Your task to perform on an android device: Show me the alarms in the clock app Image 0: 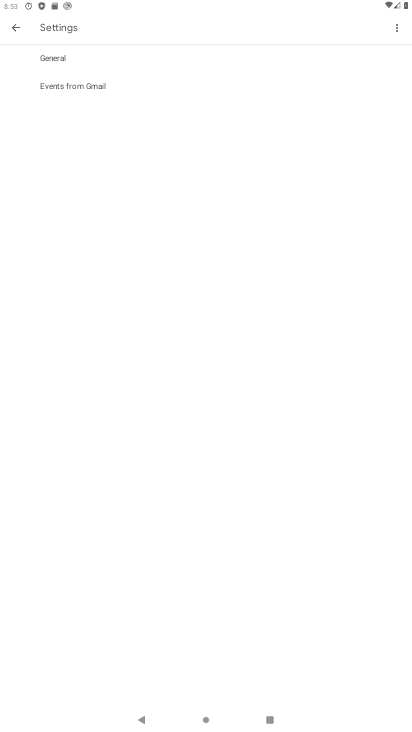
Step 0: press home button
Your task to perform on an android device: Show me the alarms in the clock app Image 1: 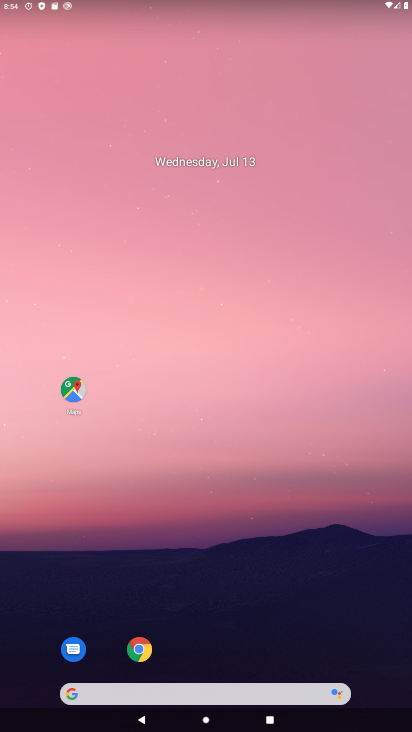
Step 1: drag from (243, 691) to (197, 0)
Your task to perform on an android device: Show me the alarms in the clock app Image 2: 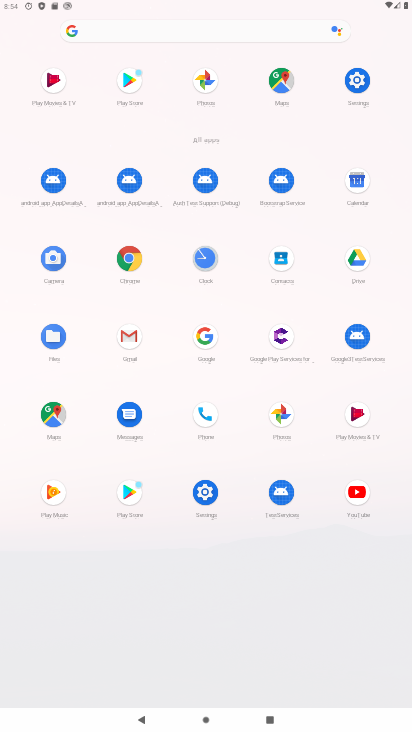
Step 2: click (209, 252)
Your task to perform on an android device: Show me the alarms in the clock app Image 3: 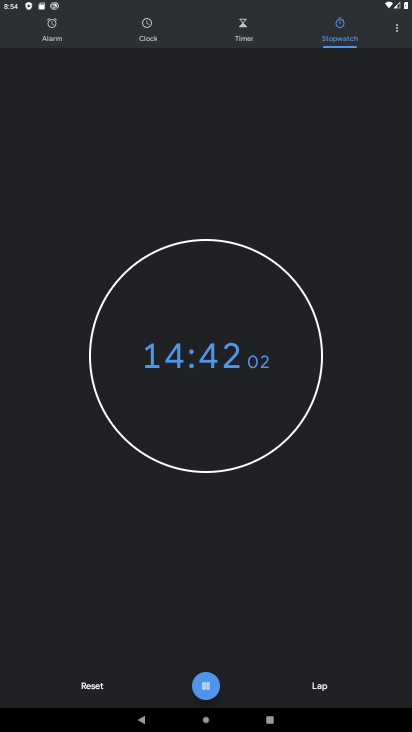
Step 3: click (58, 21)
Your task to perform on an android device: Show me the alarms in the clock app Image 4: 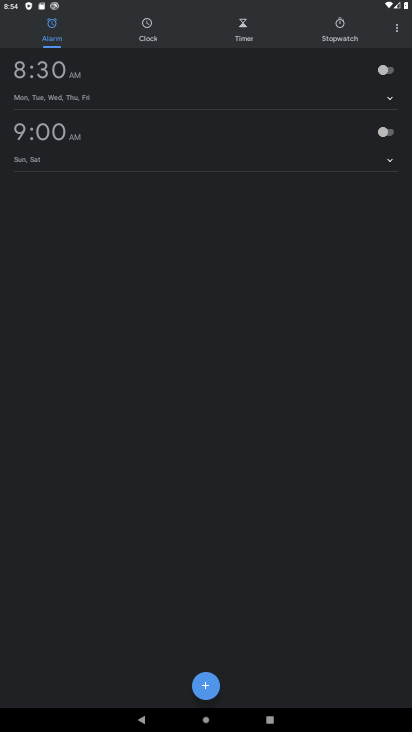
Step 4: task complete